Your task to perform on an android device: Open wifi settings Image 0: 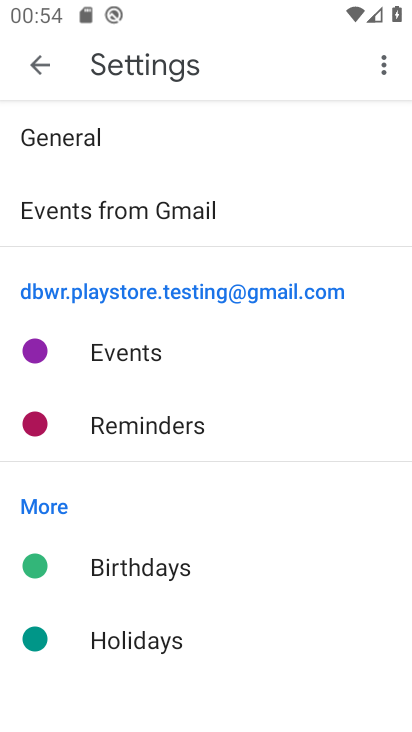
Step 0: press home button
Your task to perform on an android device: Open wifi settings Image 1: 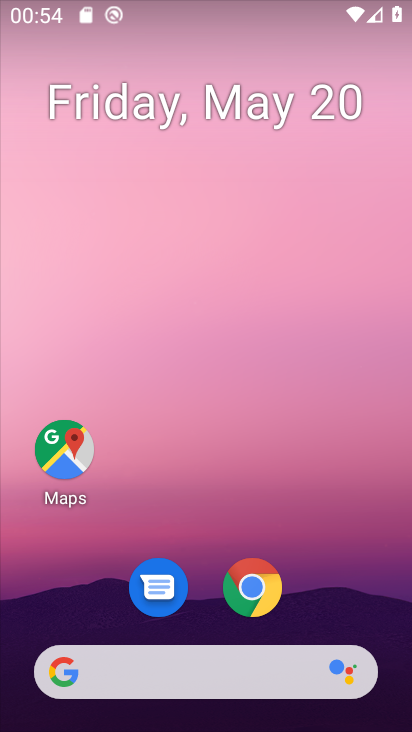
Step 1: drag from (361, 587) to (334, 221)
Your task to perform on an android device: Open wifi settings Image 2: 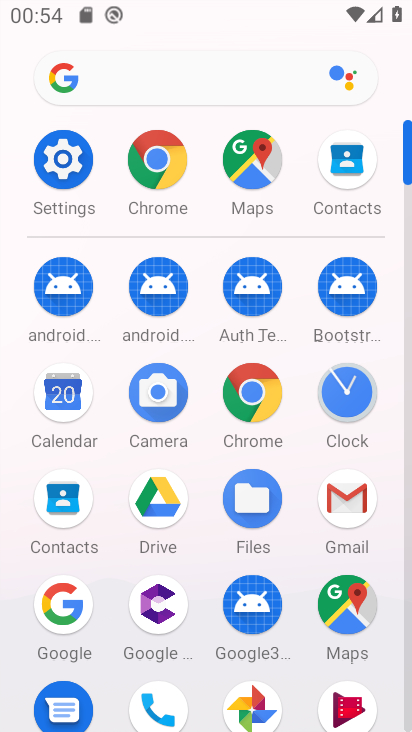
Step 2: click (79, 177)
Your task to perform on an android device: Open wifi settings Image 3: 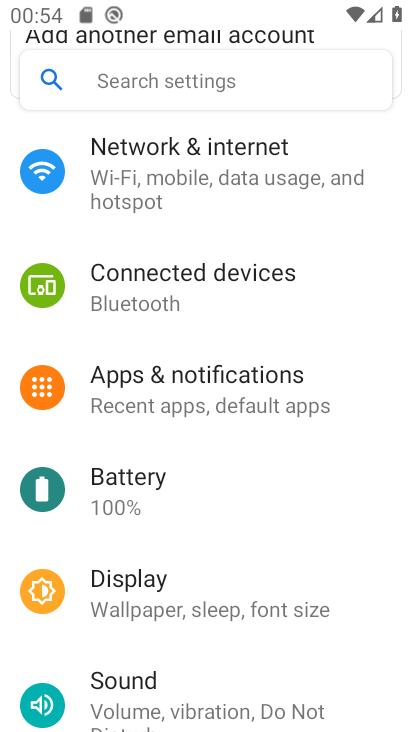
Step 3: drag from (378, 548) to (362, 459)
Your task to perform on an android device: Open wifi settings Image 4: 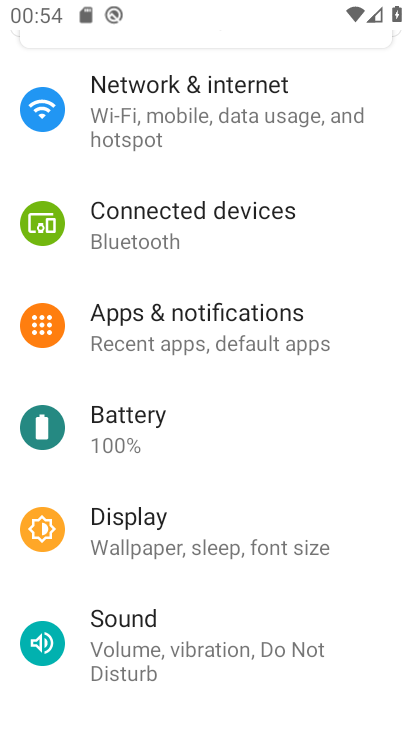
Step 4: drag from (359, 624) to (367, 513)
Your task to perform on an android device: Open wifi settings Image 5: 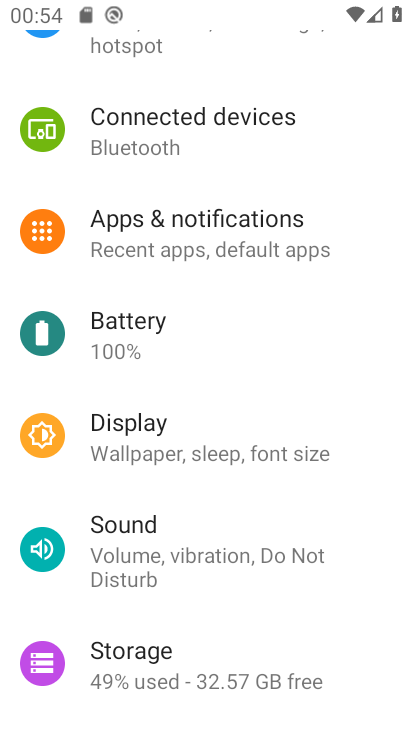
Step 5: drag from (366, 629) to (368, 491)
Your task to perform on an android device: Open wifi settings Image 6: 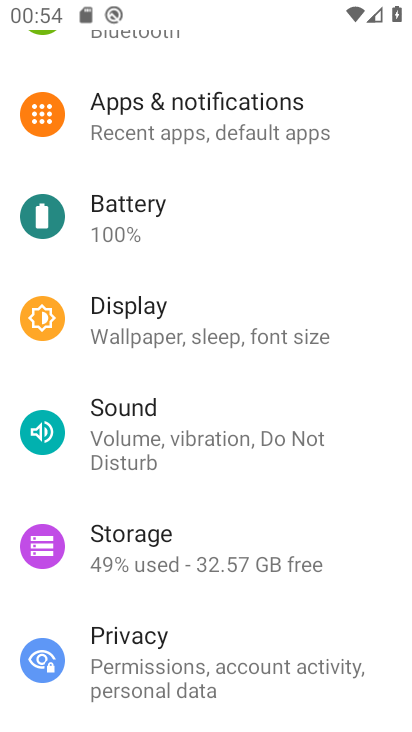
Step 6: drag from (361, 644) to (362, 544)
Your task to perform on an android device: Open wifi settings Image 7: 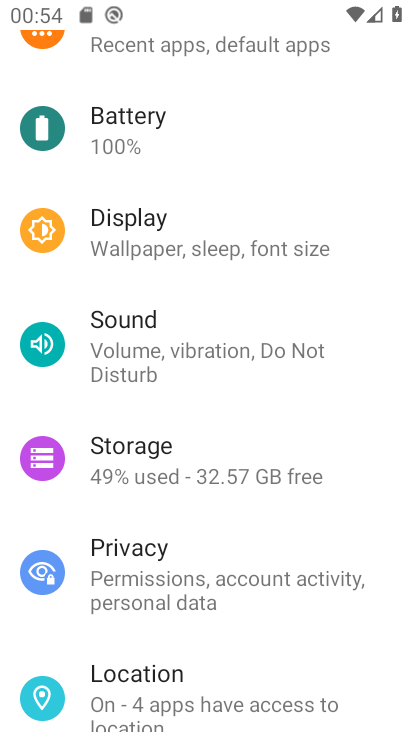
Step 7: drag from (352, 579) to (352, 483)
Your task to perform on an android device: Open wifi settings Image 8: 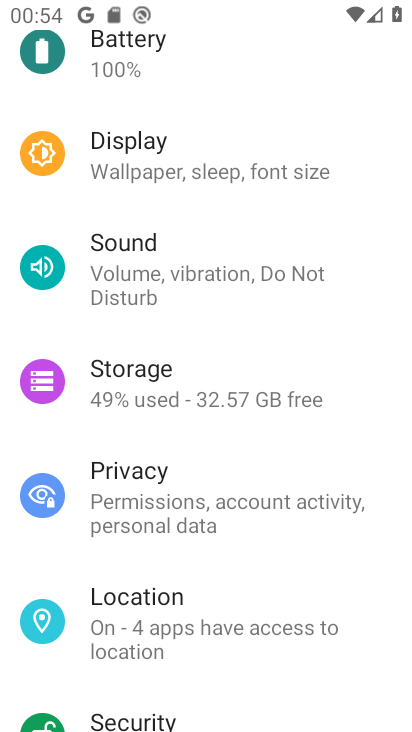
Step 8: drag from (355, 574) to (361, 449)
Your task to perform on an android device: Open wifi settings Image 9: 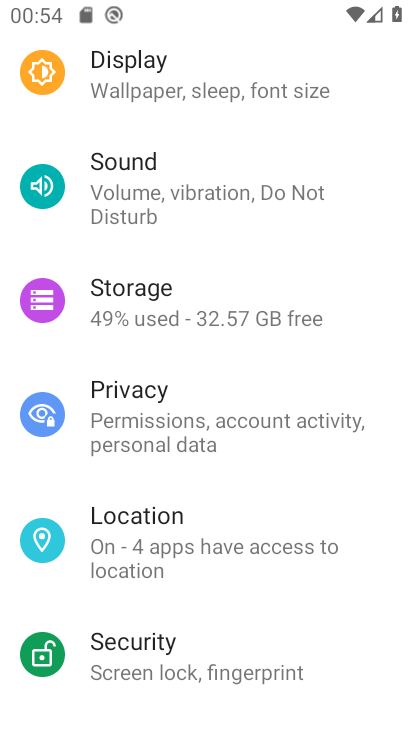
Step 9: drag from (352, 607) to (358, 474)
Your task to perform on an android device: Open wifi settings Image 10: 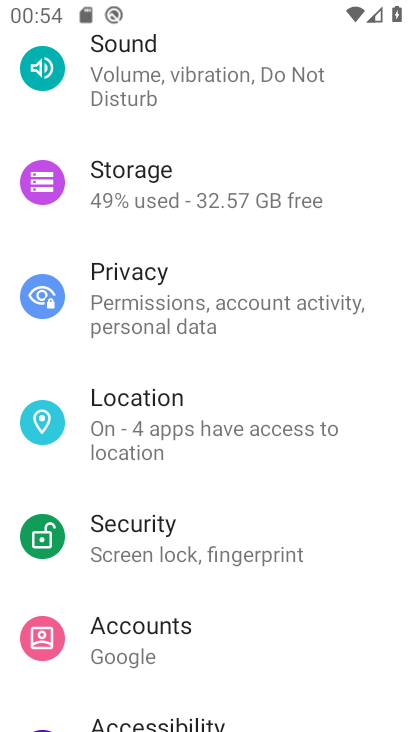
Step 10: drag from (363, 567) to (364, 463)
Your task to perform on an android device: Open wifi settings Image 11: 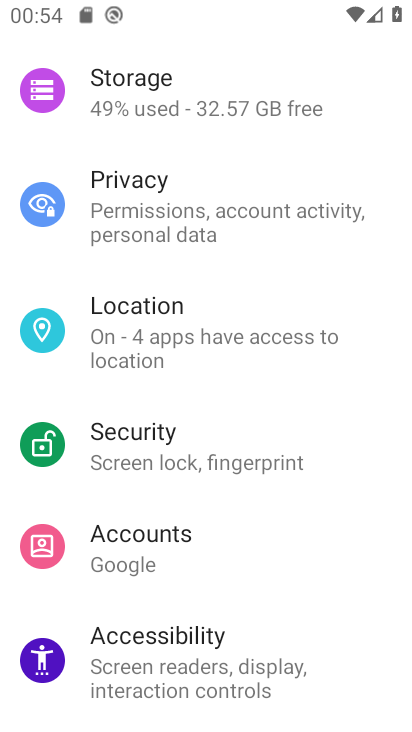
Step 11: drag from (362, 544) to (362, 455)
Your task to perform on an android device: Open wifi settings Image 12: 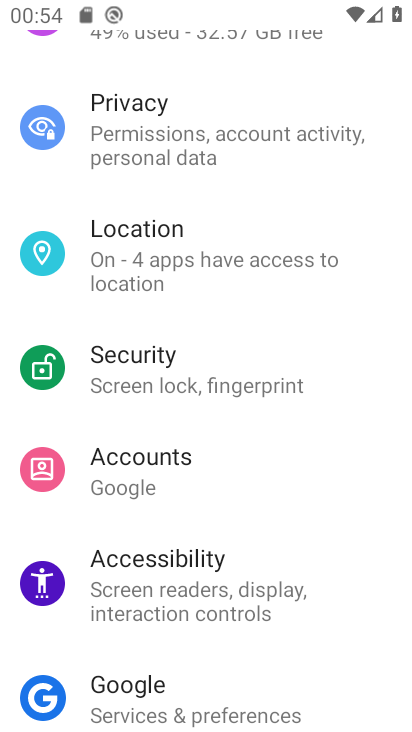
Step 12: drag from (366, 552) to (360, 446)
Your task to perform on an android device: Open wifi settings Image 13: 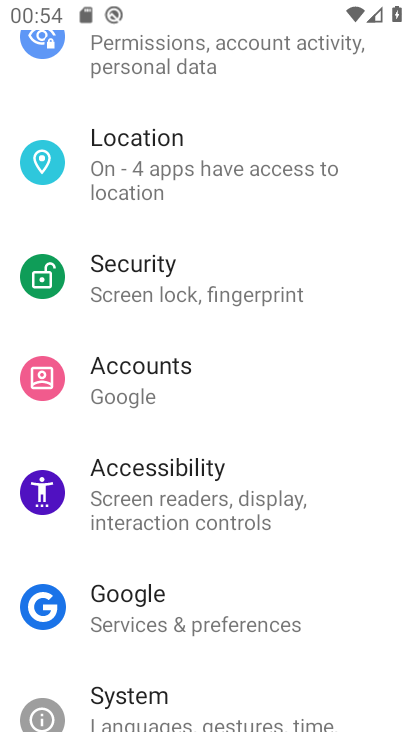
Step 13: drag from (357, 578) to (361, 452)
Your task to perform on an android device: Open wifi settings Image 14: 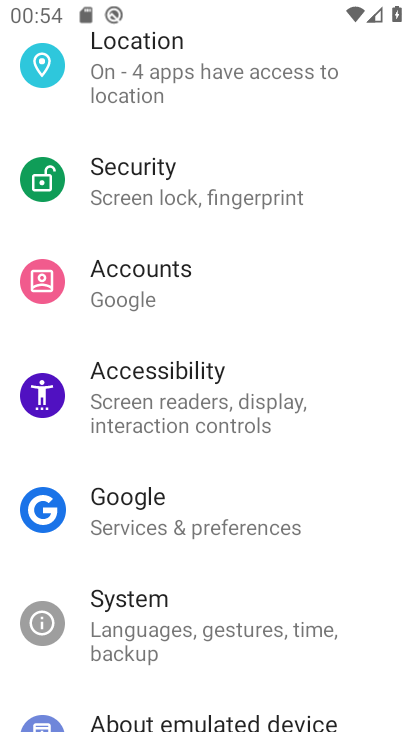
Step 14: drag from (349, 582) to (360, 458)
Your task to perform on an android device: Open wifi settings Image 15: 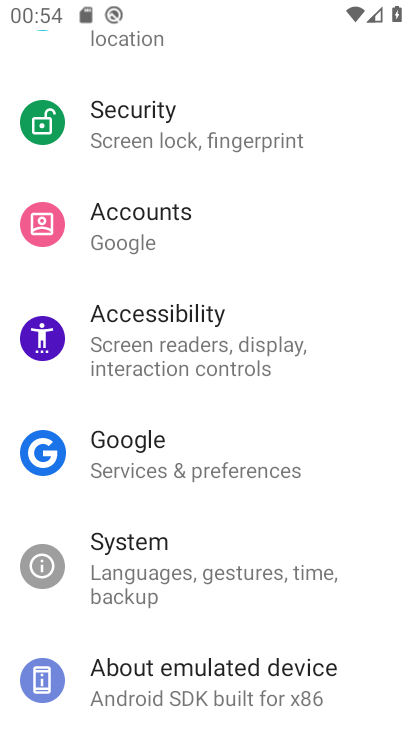
Step 15: drag from (360, 596) to (364, 472)
Your task to perform on an android device: Open wifi settings Image 16: 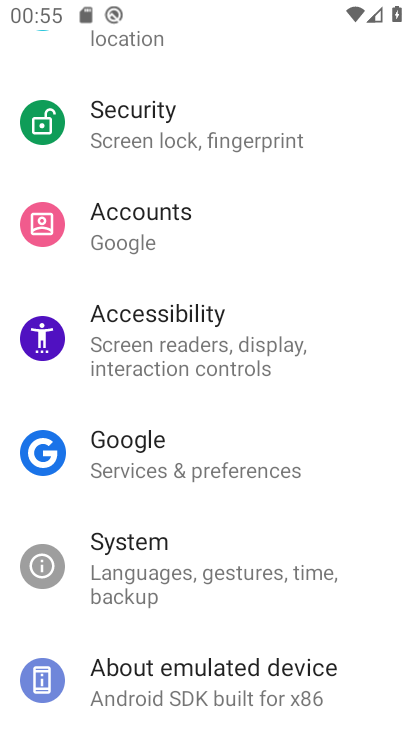
Step 16: drag from (365, 385) to (367, 555)
Your task to perform on an android device: Open wifi settings Image 17: 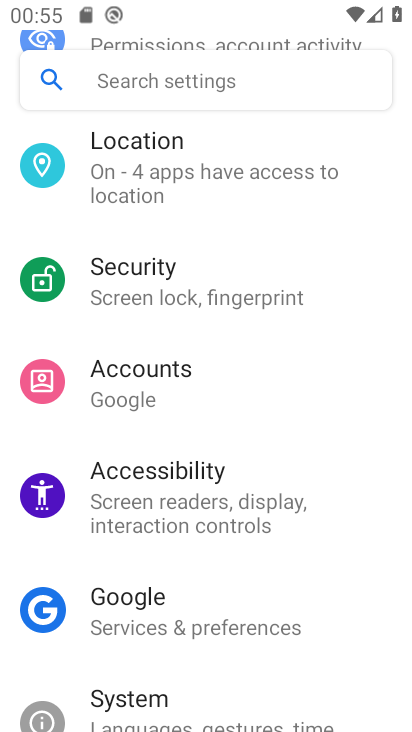
Step 17: drag from (370, 373) to (371, 504)
Your task to perform on an android device: Open wifi settings Image 18: 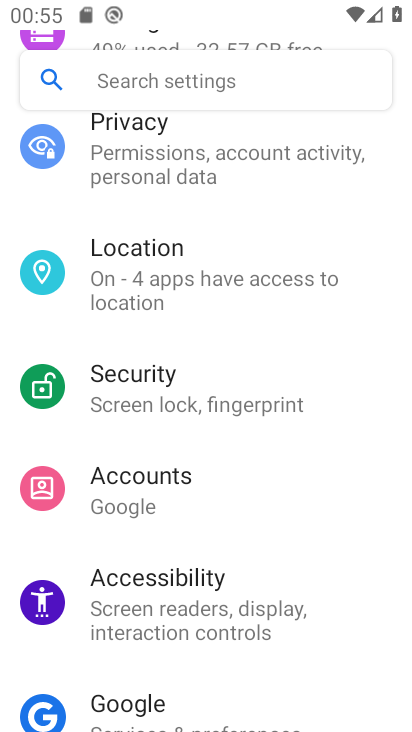
Step 18: drag from (363, 322) to (354, 444)
Your task to perform on an android device: Open wifi settings Image 19: 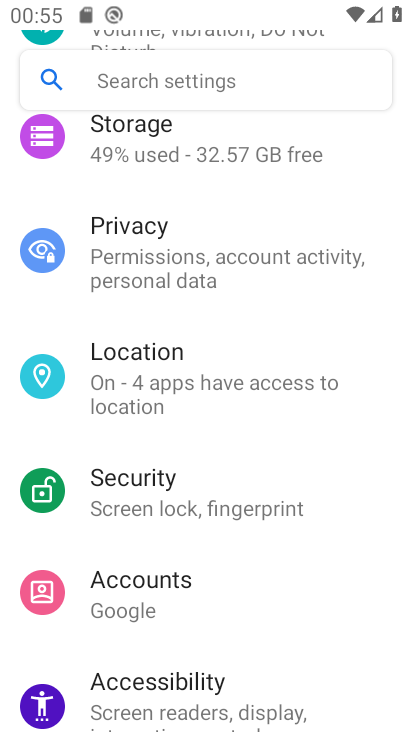
Step 19: drag from (351, 287) to (352, 378)
Your task to perform on an android device: Open wifi settings Image 20: 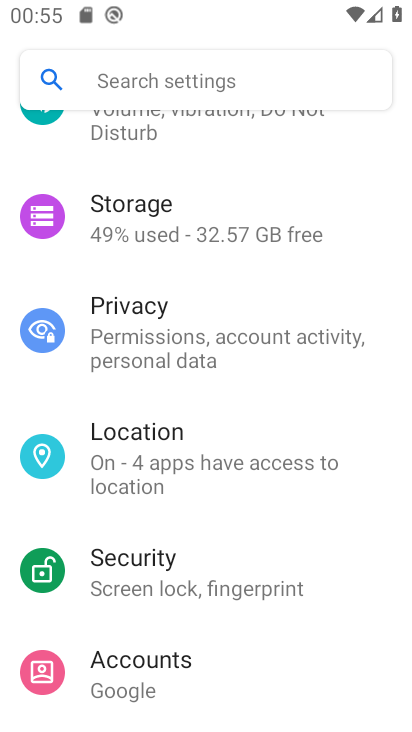
Step 20: drag from (353, 252) to (339, 358)
Your task to perform on an android device: Open wifi settings Image 21: 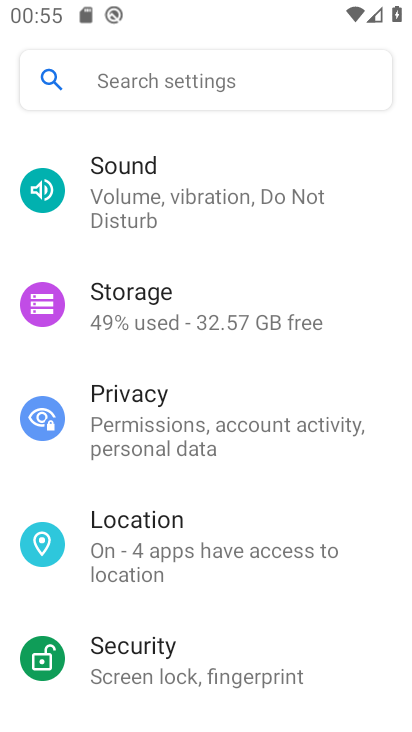
Step 21: drag from (335, 180) to (317, 301)
Your task to perform on an android device: Open wifi settings Image 22: 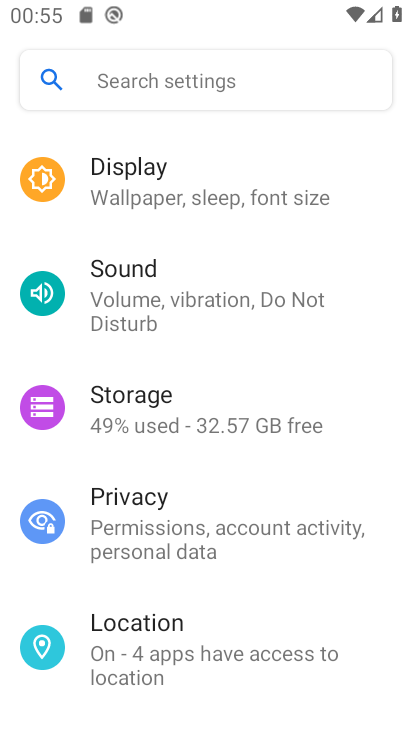
Step 22: drag from (311, 152) to (308, 260)
Your task to perform on an android device: Open wifi settings Image 23: 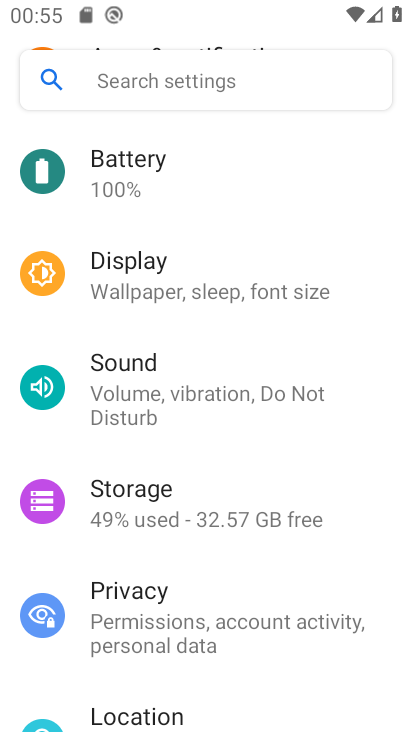
Step 23: drag from (354, 214) to (352, 365)
Your task to perform on an android device: Open wifi settings Image 24: 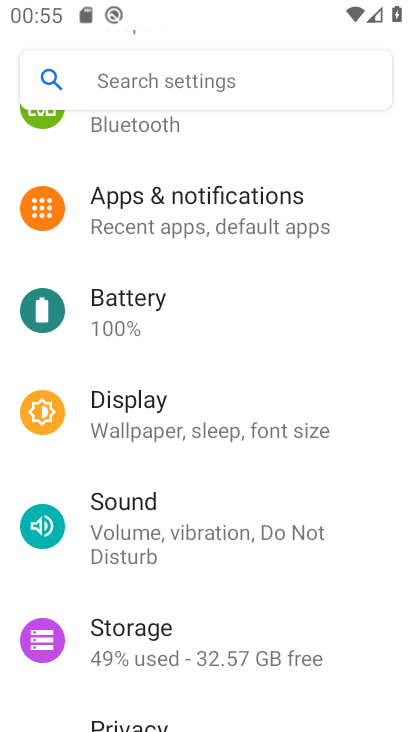
Step 24: drag from (363, 234) to (363, 315)
Your task to perform on an android device: Open wifi settings Image 25: 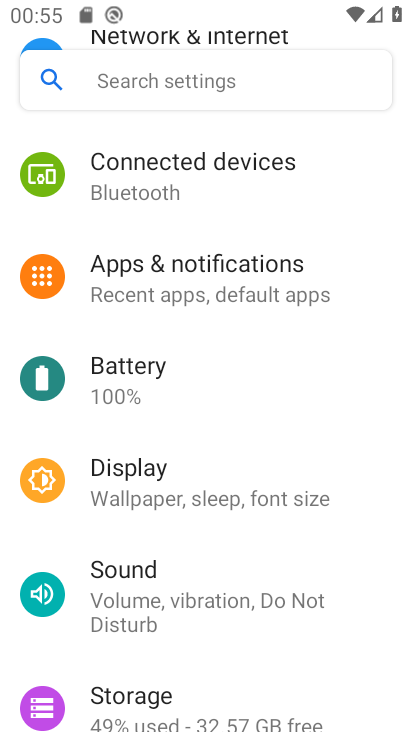
Step 25: drag from (365, 195) to (364, 322)
Your task to perform on an android device: Open wifi settings Image 26: 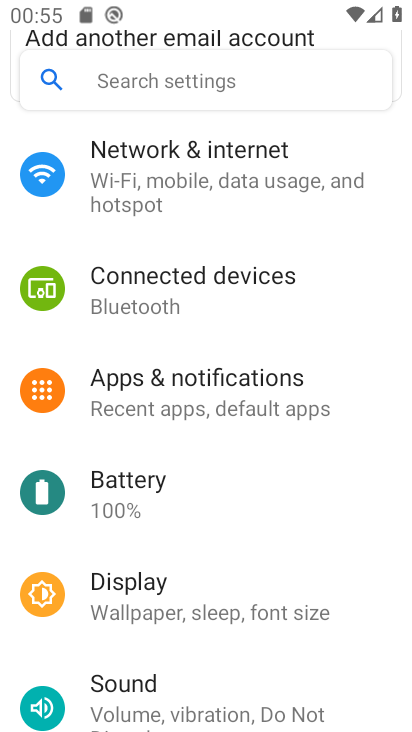
Step 26: drag from (363, 223) to (352, 311)
Your task to perform on an android device: Open wifi settings Image 27: 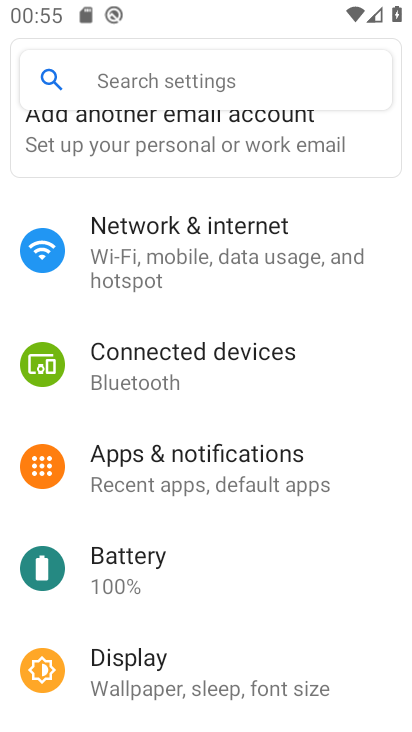
Step 27: click (296, 242)
Your task to perform on an android device: Open wifi settings Image 28: 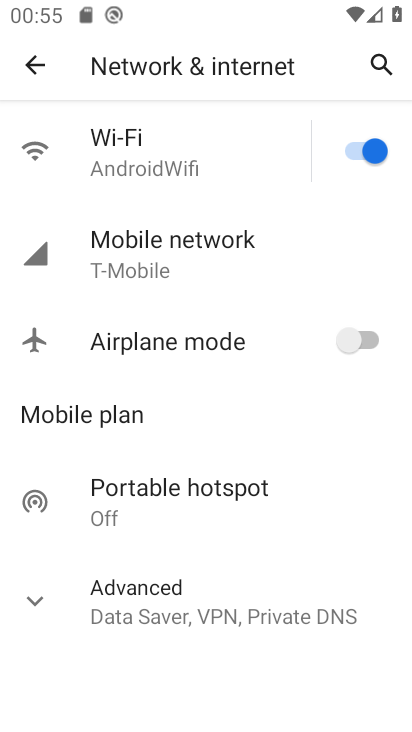
Step 28: click (192, 168)
Your task to perform on an android device: Open wifi settings Image 29: 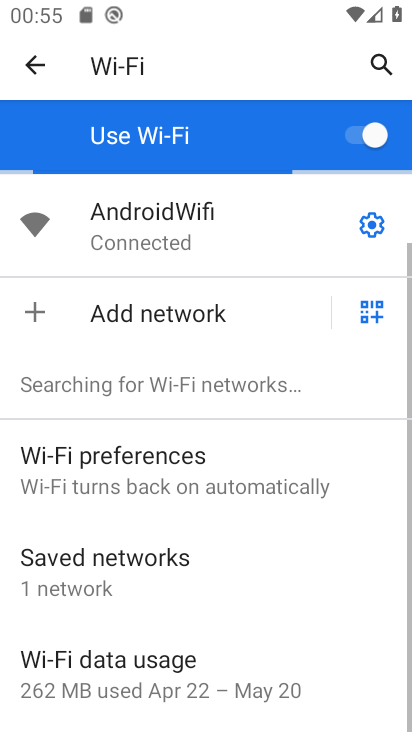
Step 29: task complete